Your task to perform on an android device: read, delete, or share a saved page in the chrome app Image 0: 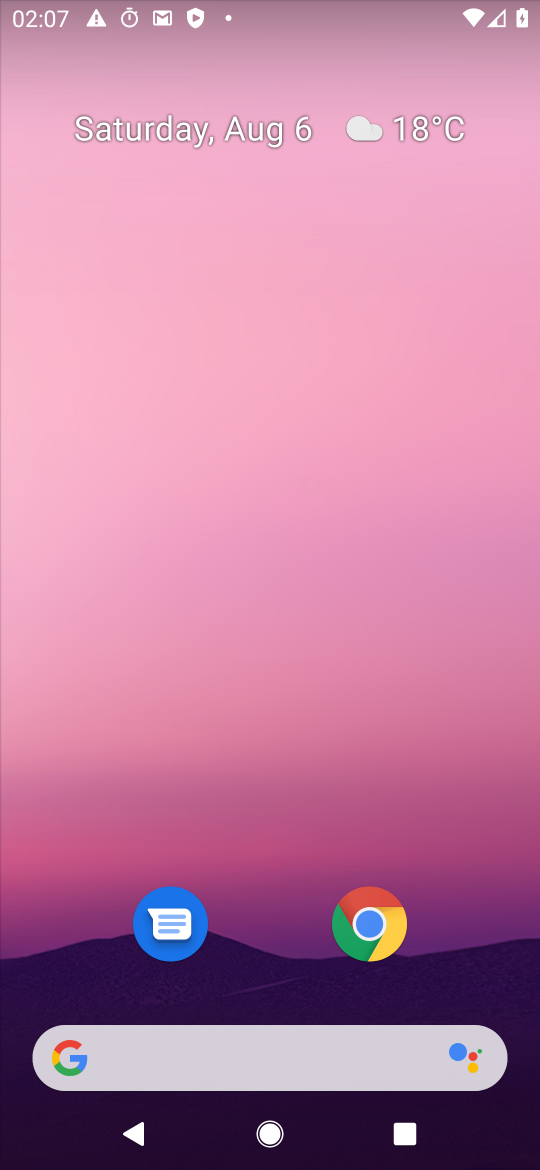
Step 0: drag from (394, 1033) to (490, 3)
Your task to perform on an android device: read, delete, or share a saved page in the chrome app Image 1: 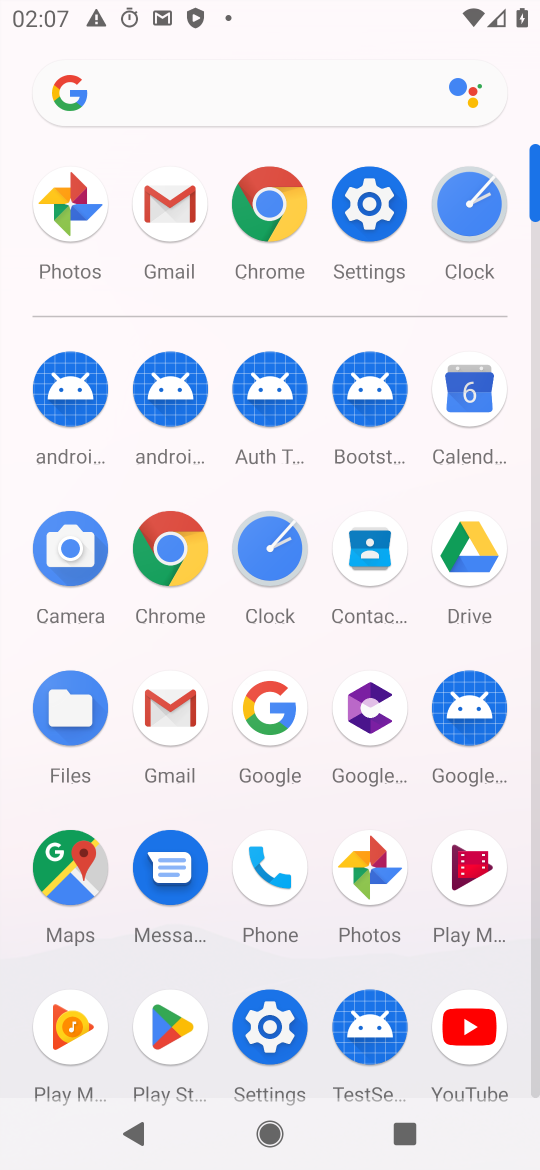
Step 1: click (170, 550)
Your task to perform on an android device: read, delete, or share a saved page in the chrome app Image 2: 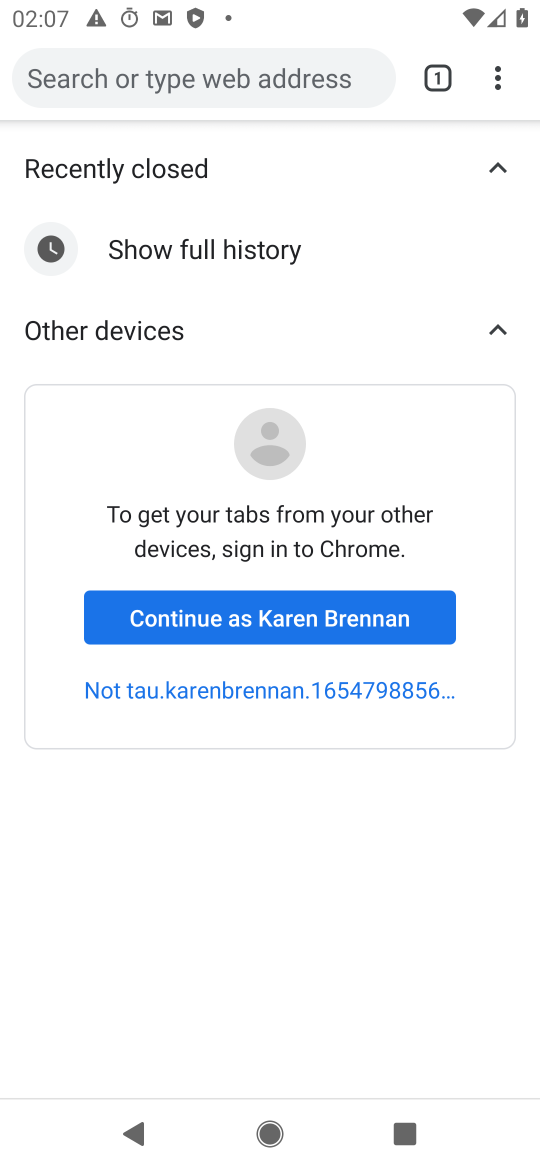
Step 2: click (489, 82)
Your task to perform on an android device: read, delete, or share a saved page in the chrome app Image 3: 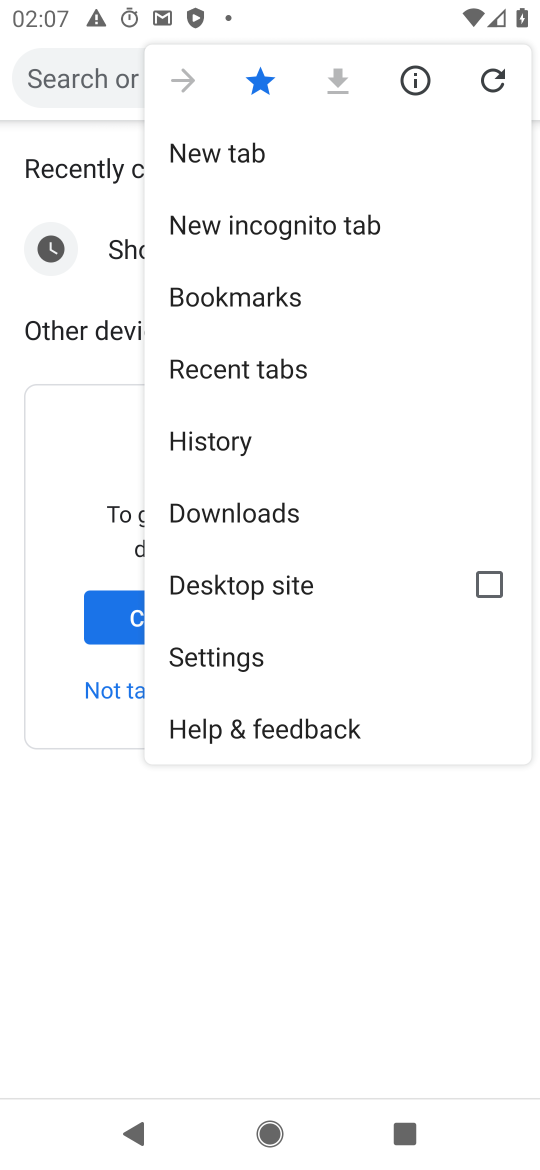
Step 3: click (243, 497)
Your task to perform on an android device: read, delete, or share a saved page in the chrome app Image 4: 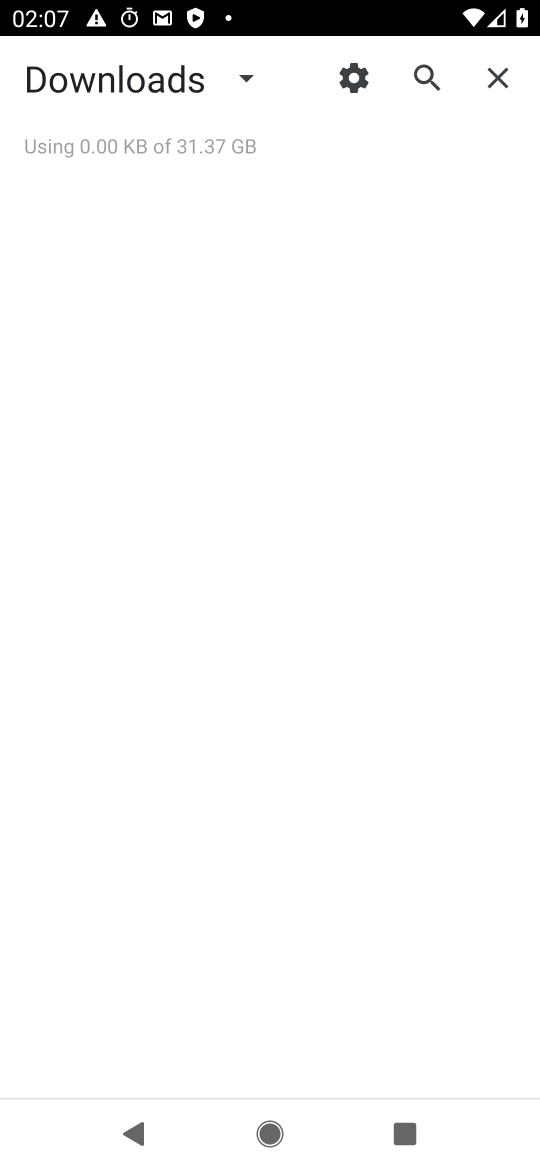
Step 4: task complete